Your task to perform on an android device: Open notification settings Image 0: 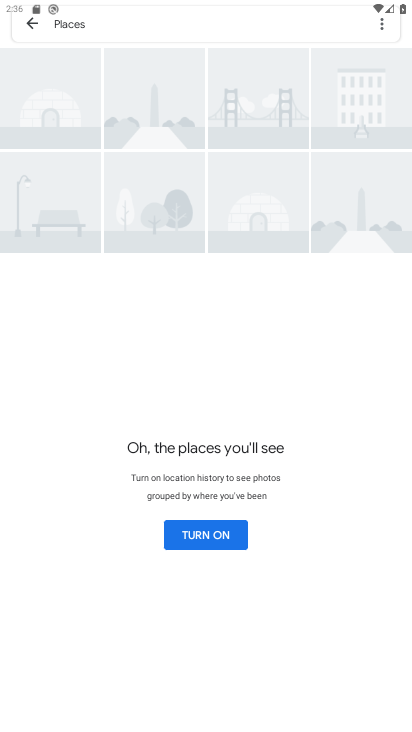
Step 0: press home button
Your task to perform on an android device: Open notification settings Image 1: 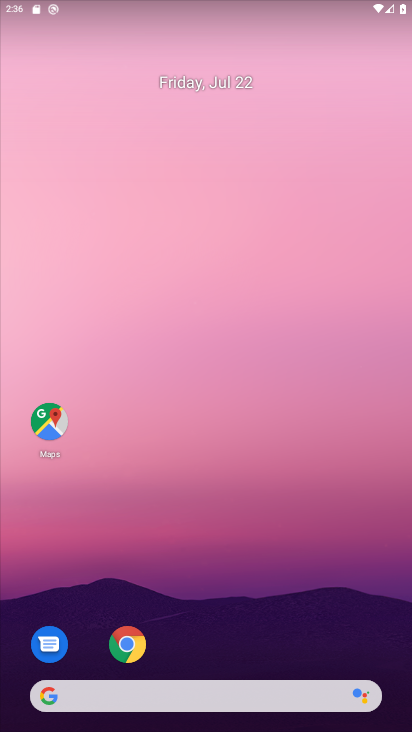
Step 1: drag from (252, 644) to (262, 203)
Your task to perform on an android device: Open notification settings Image 2: 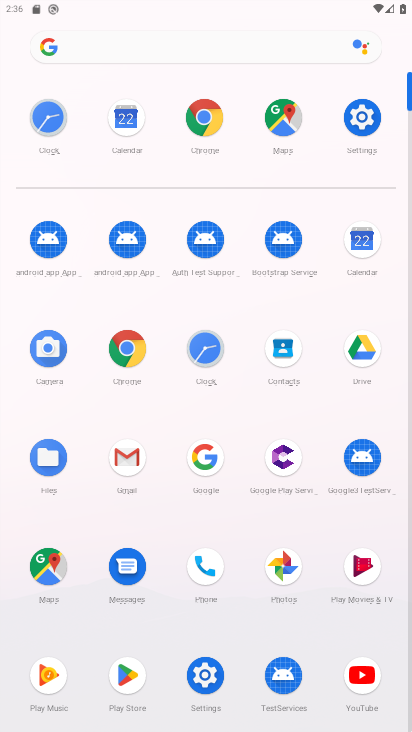
Step 2: click (370, 112)
Your task to perform on an android device: Open notification settings Image 3: 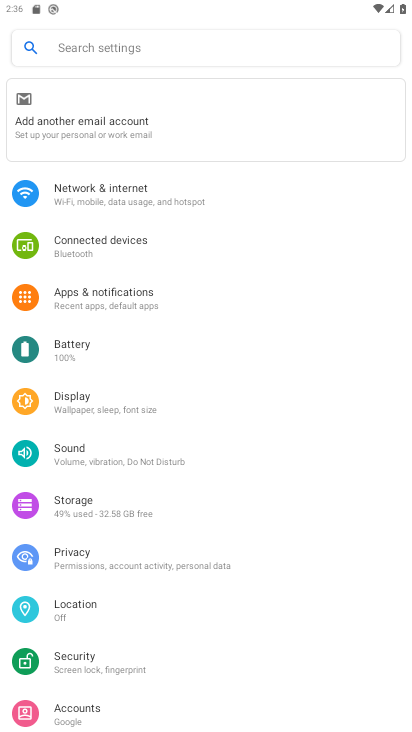
Step 3: click (142, 290)
Your task to perform on an android device: Open notification settings Image 4: 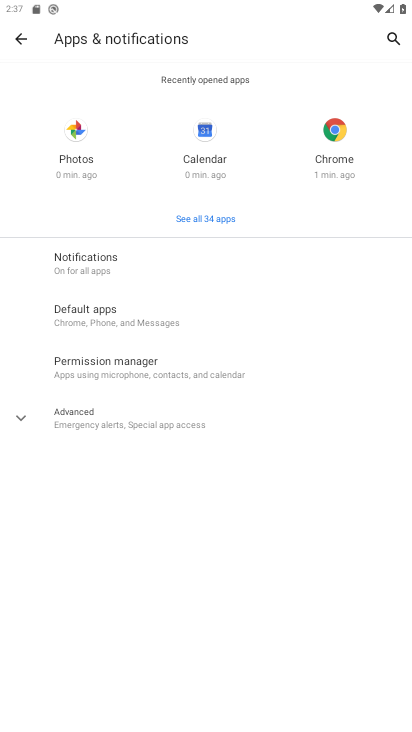
Step 4: task complete